Your task to perform on an android device: Open maps Image 0: 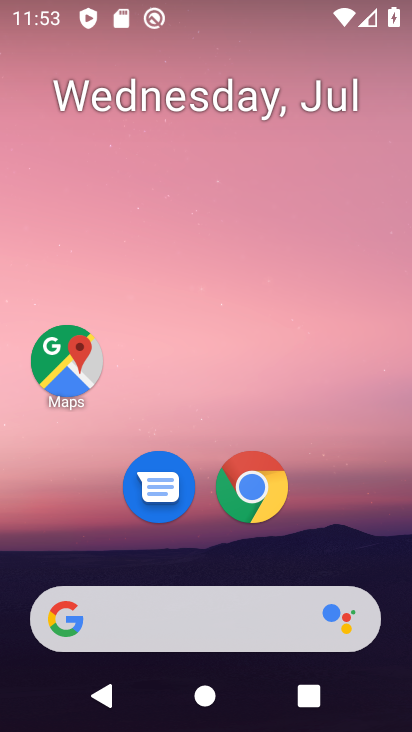
Step 0: drag from (240, 595) to (300, 40)
Your task to perform on an android device: Open maps Image 1: 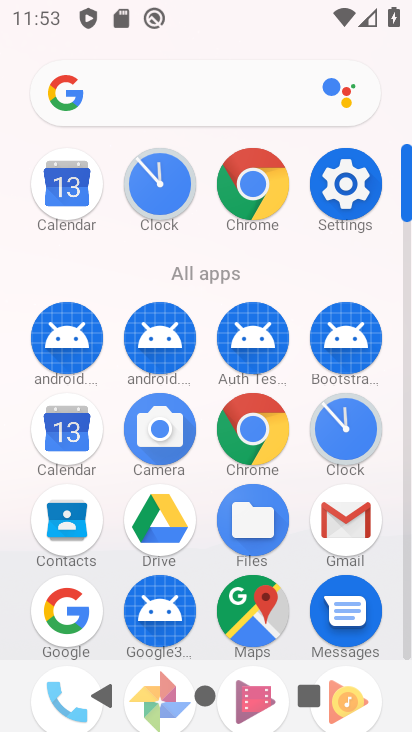
Step 1: drag from (210, 482) to (233, 314)
Your task to perform on an android device: Open maps Image 2: 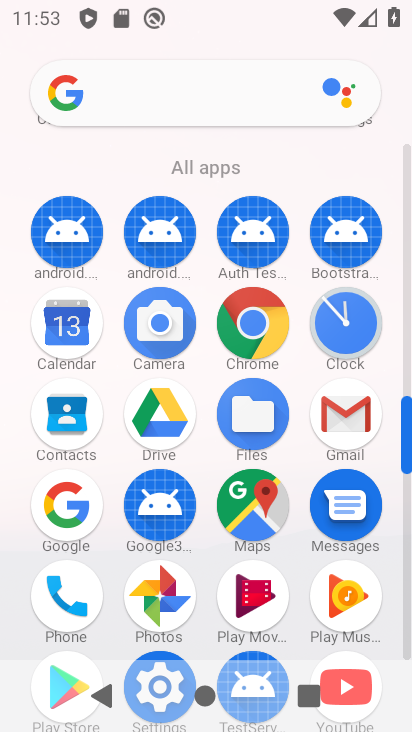
Step 2: click (259, 527)
Your task to perform on an android device: Open maps Image 3: 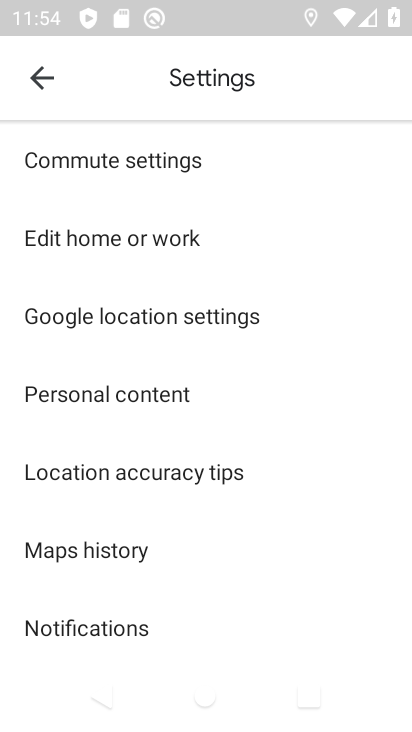
Step 3: click (46, 84)
Your task to perform on an android device: Open maps Image 4: 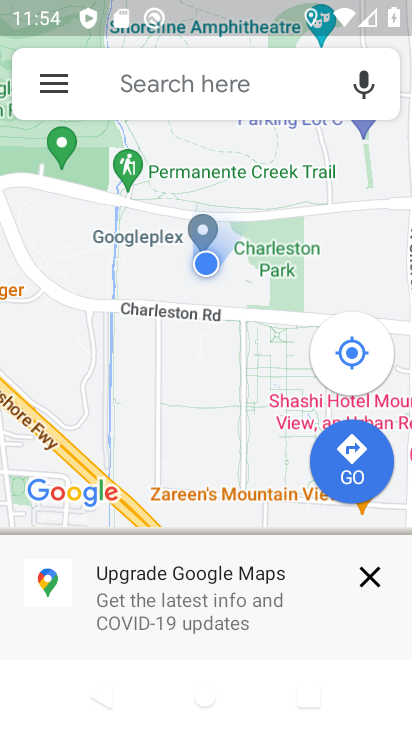
Step 4: task complete